Your task to perform on an android device: Empty the shopping cart on ebay.com. Search for razer blade on ebay.com, select the first entry, and add it to the cart. Image 0: 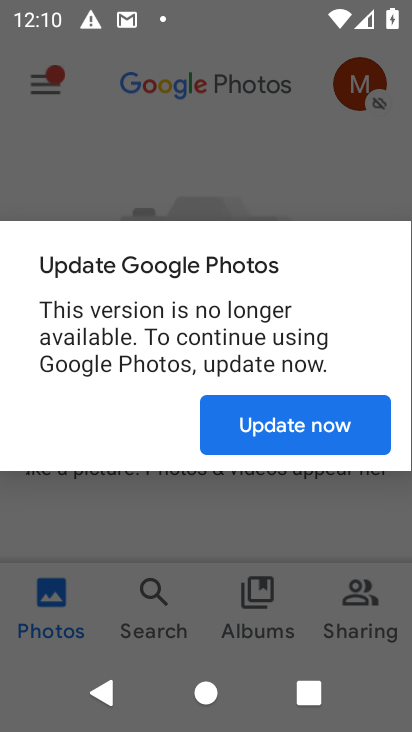
Step 0: press home button
Your task to perform on an android device: Empty the shopping cart on ebay.com. Search for razer blade on ebay.com, select the first entry, and add it to the cart. Image 1: 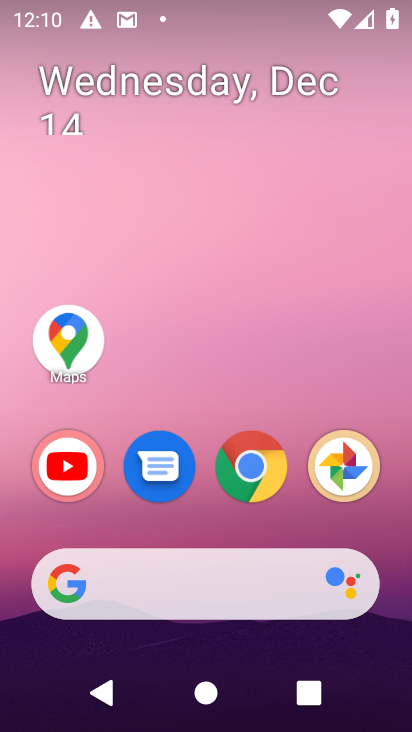
Step 1: click (191, 589)
Your task to perform on an android device: Empty the shopping cart on ebay.com. Search for razer blade on ebay.com, select the first entry, and add it to the cart. Image 2: 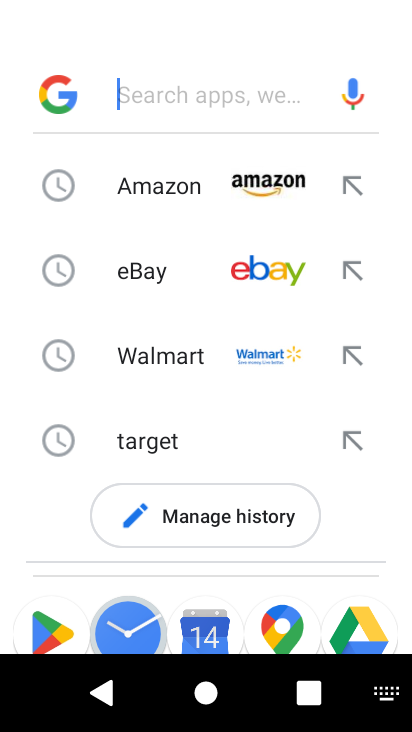
Step 2: click (148, 269)
Your task to perform on an android device: Empty the shopping cart on ebay.com. Search for razer blade on ebay.com, select the first entry, and add it to the cart. Image 3: 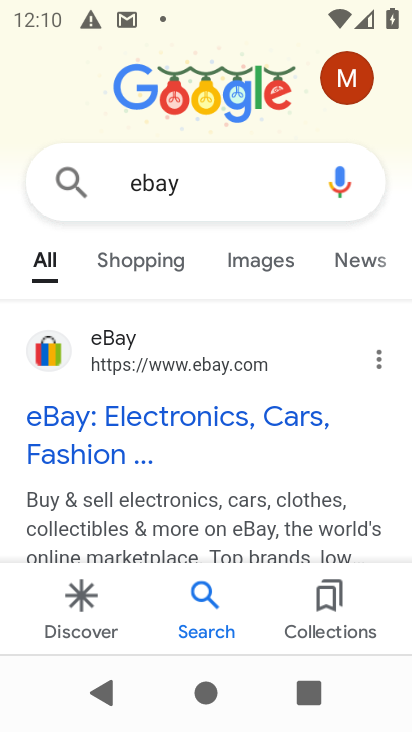
Step 3: click (82, 421)
Your task to perform on an android device: Empty the shopping cart on ebay.com. Search for razer blade on ebay.com, select the first entry, and add it to the cart. Image 4: 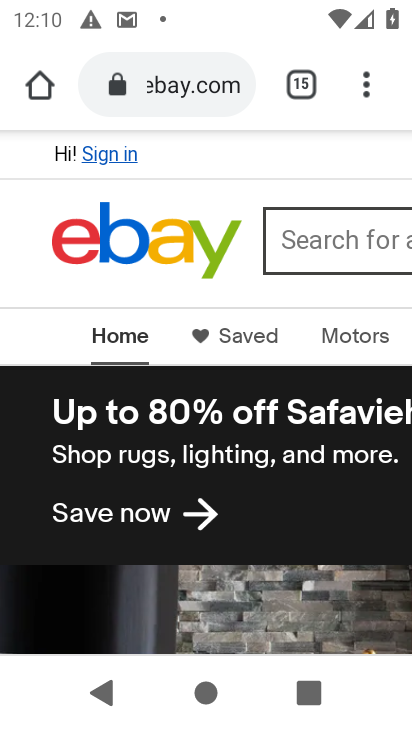
Step 4: click (301, 254)
Your task to perform on an android device: Empty the shopping cart on ebay.com. Search for razer blade on ebay.com, select the first entry, and add it to the cart. Image 5: 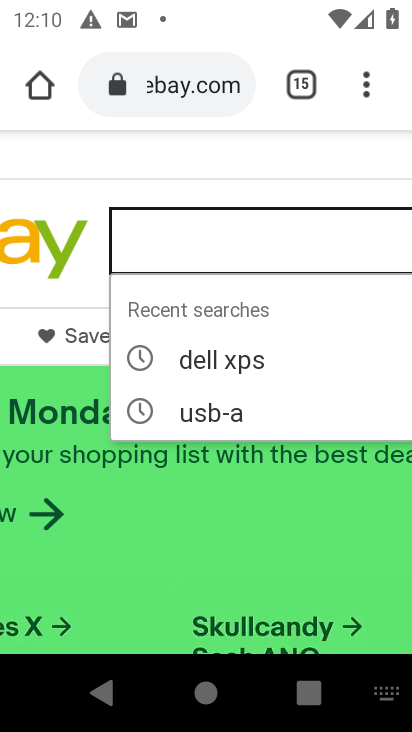
Step 5: type "razer blade"
Your task to perform on an android device: Empty the shopping cart on ebay.com. Search for razer blade on ebay.com, select the first entry, and add it to the cart. Image 6: 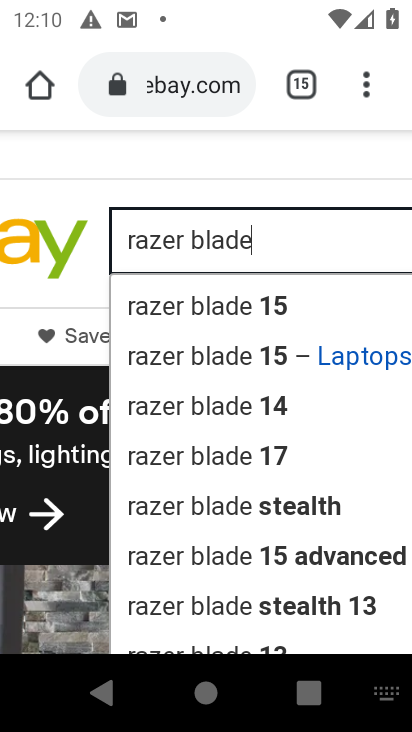
Step 6: drag from (256, 188) to (50, 185)
Your task to perform on an android device: Empty the shopping cart on ebay.com. Search for razer blade on ebay.com, select the first entry, and add it to the cart. Image 7: 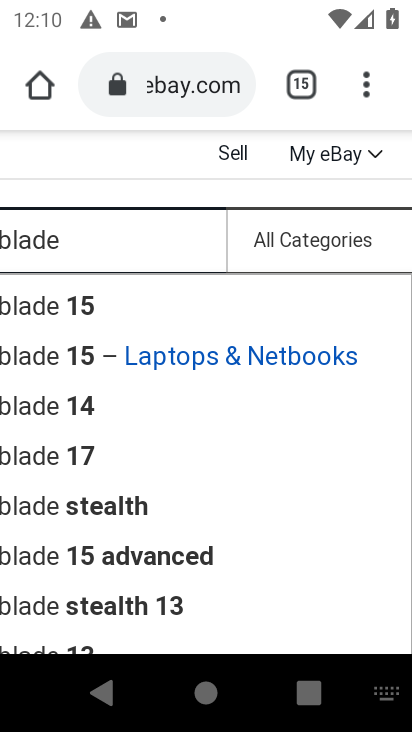
Step 7: drag from (332, 190) to (5, 209)
Your task to perform on an android device: Empty the shopping cart on ebay.com. Search for razer blade on ebay.com, select the first entry, and add it to the cart. Image 8: 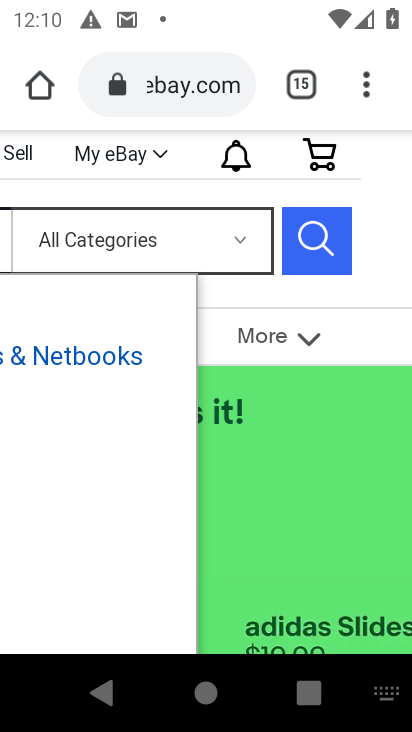
Step 8: click (316, 243)
Your task to perform on an android device: Empty the shopping cart on ebay.com. Search for razer blade on ebay.com, select the first entry, and add it to the cart. Image 9: 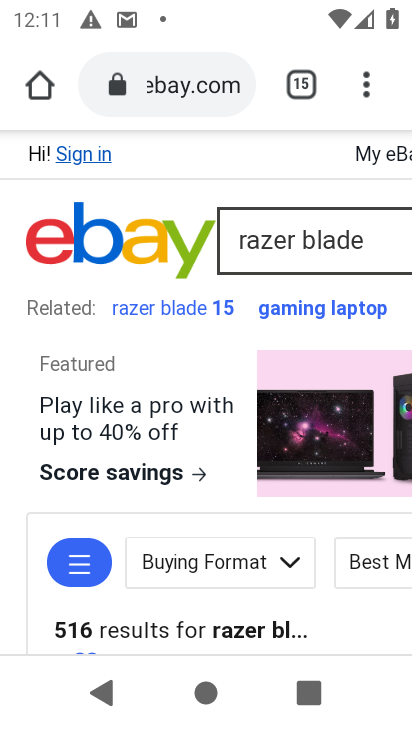
Step 9: drag from (220, 474) to (221, 337)
Your task to perform on an android device: Empty the shopping cart on ebay.com. Search for razer blade on ebay.com, select the first entry, and add it to the cart. Image 10: 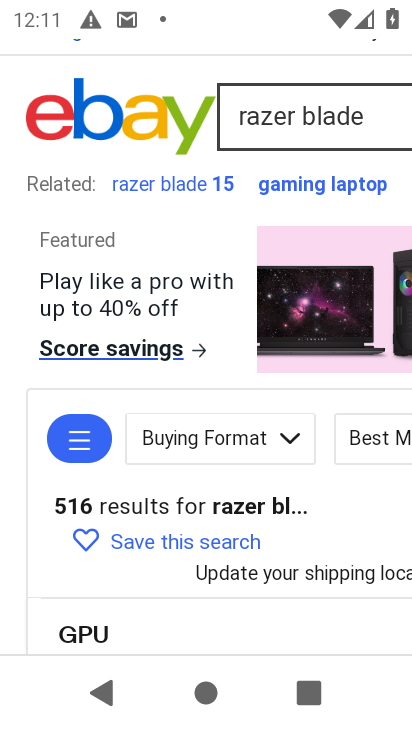
Step 10: drag from (299, 618) to (287, 459)
Your task to perform on an android device: Empty the shopping cart on ebay.com. Search for razer blade on ebay.com, select the first entry, and add it to the cart. Image 11: 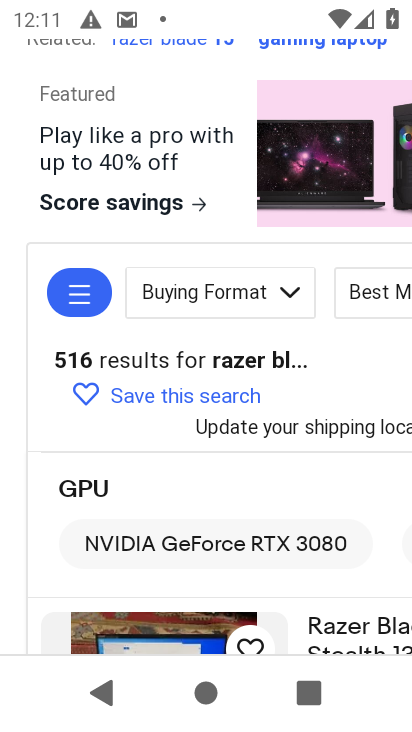
Step 11: click (294, 464)
Your task to perform on an android device: Empty the shopping cart on ebay.com. Search for razer blade on ebay.com, select the first entry, and add it to the cart. Image 12: 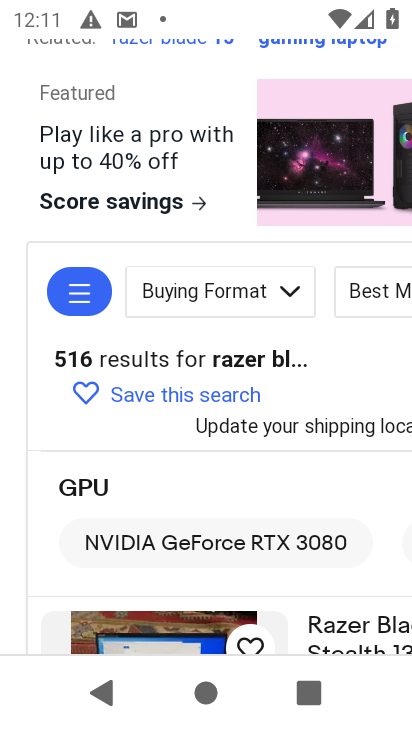
Step 12: drag from (262, 481) to (262, 299)
Your task to perform on an android device: Empty the shopping cart on ebay.com. Search for razer blade on ebay.com, select the first entry, and add it to the cart. Image 13: 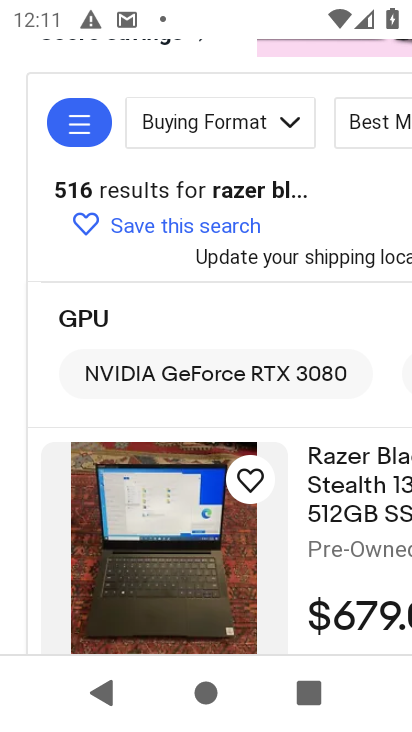
Step 13: drag from (287, 573) to (283, 311)
Your task to perform on an android device: Empty the shopping cart on ebay.com. Search for razer blade on ebay.com, select the first entry, and add it to the cart. Image 14: 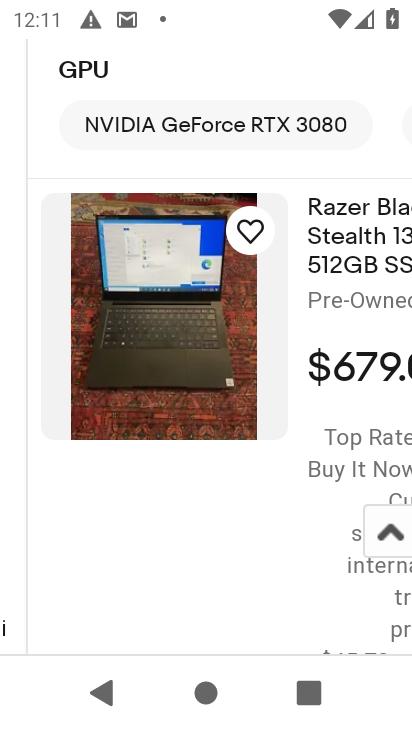
Step 14: drag from (210, 552) to (0, 500)
Your task to perform on an android device: Empty the shopping cart on ebay.com. Search for razer blade on ebay.com, select the first entry, and add it to the cart. Image 15: 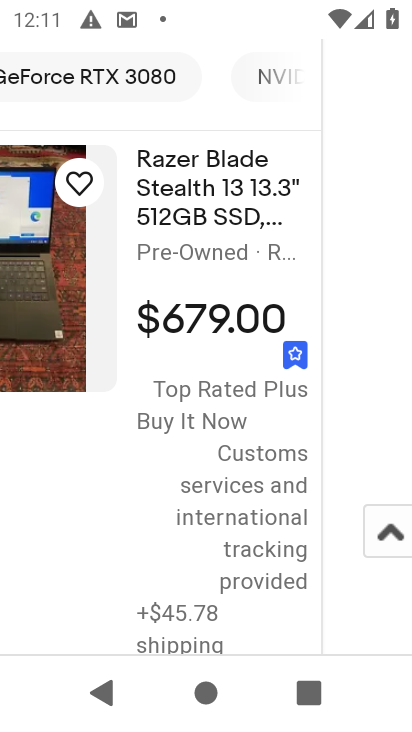
Step 15: drag from (193, 502) to (193, 278)
Your task to perform on an android device: Empty the shopping cart on ebay.com. Search for razer blade on ebay.com, select the first entry, and add it to the cart. Image 16: 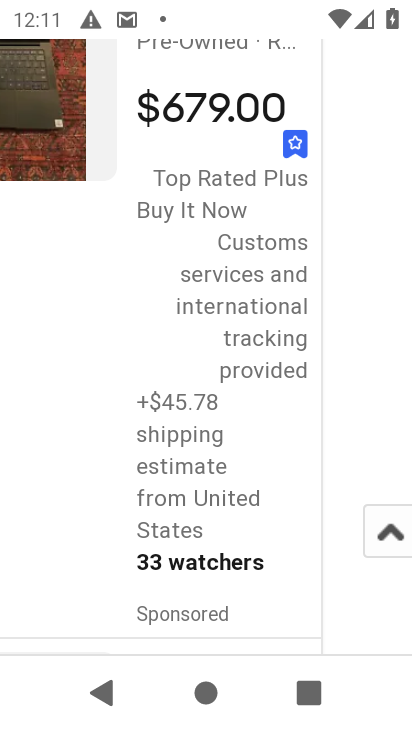
Step 16: drag from (271, 519) to (255, 321)
Your task to perform on an android device: Empty the shopping cart on ebay.com. Search for razer blade on ebay.com, select the first entry, and add it to the cart. Image 17: 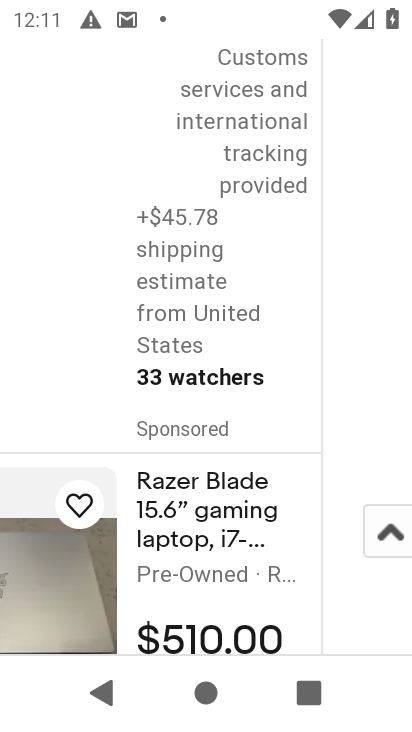
Step 17: drag from (37, 356) to (273, 356)
Your task to perform on an android device: Empty the shopping cart on ebay.com. Search for razer blade on ebay.com, select the first entry, and add it to the cart. Image 18: 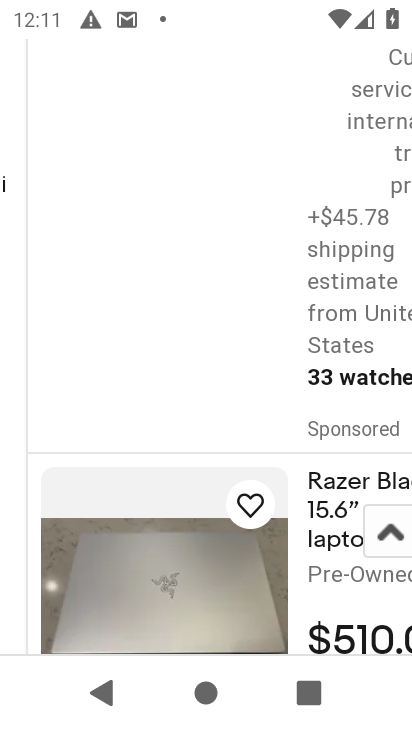
Step 18: drag from (233, 336) to (233, 282)
Your task to perform on an android device: Empty the shopping cart on ebay.com. Search for razer blade on ebay.com, select the first entry, and add it to the cart. Image 19: 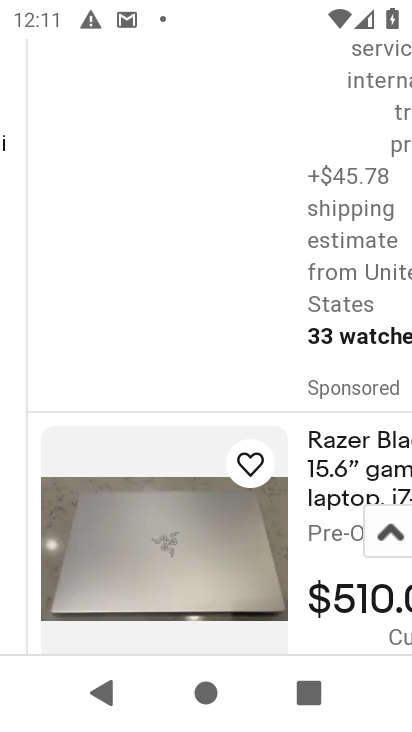
Step 19: drag from (318, 618) to (318, 296)
Your task to perform on an android device: Empty the shopping cart on ebay.com. Search for razer blade on ebay.com, select the first entry, and add it to the cart. Image 20: 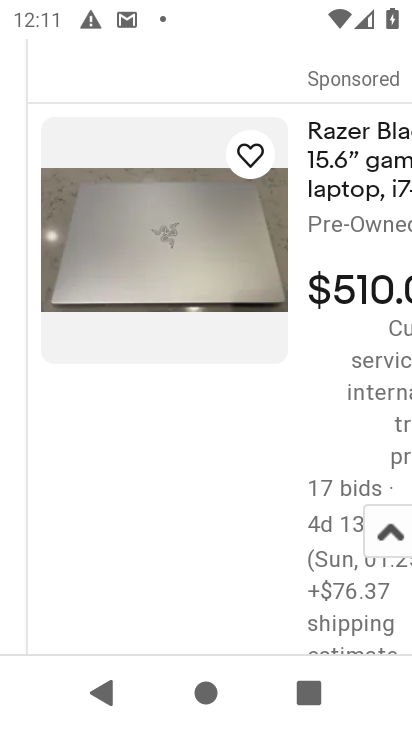
Step 20: drag from (370, 503) to (51, 503)
Your task to perform on an android device: Empty the shopping cart on ebay.com. Search for razer blade on ebay.com, select the first entry, and add it to the cart. Image 21: 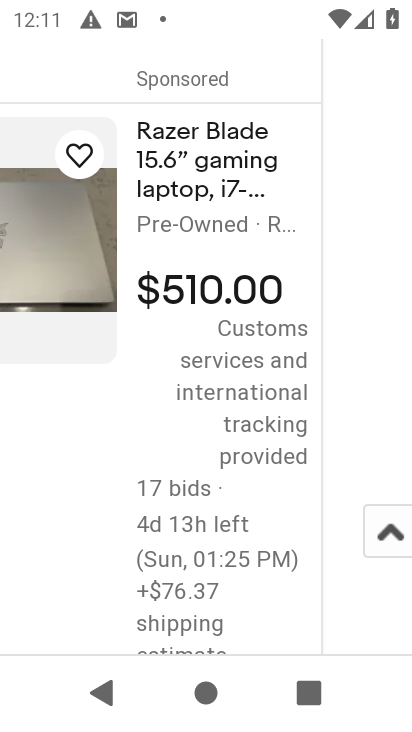
Step 21: drag from (251, 589) to (241, 268)
Your task to perform on an android device: Empty the shopping cart on ebay.com. Search for razer blade on ebay.com, select the first entry, and add it to the cart. Image 22: 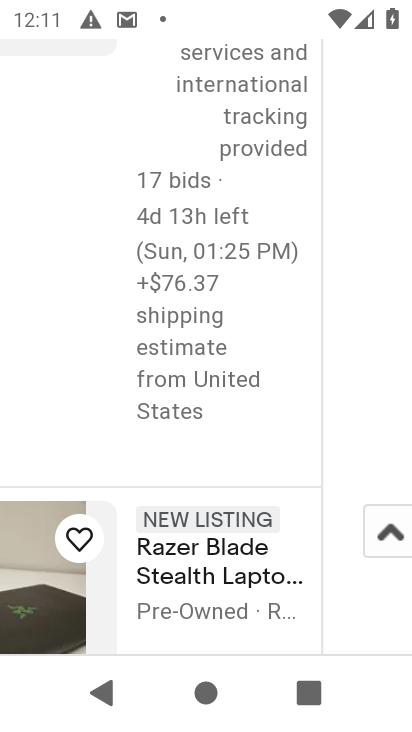
Step 22: drag from (247, 261) to (267, 581)
Your task to perform on an android device: Empty the shopping cart on ebay.com. Search for razer blade on ebay.com, select the first entry, and add it to the cart. Image 23: 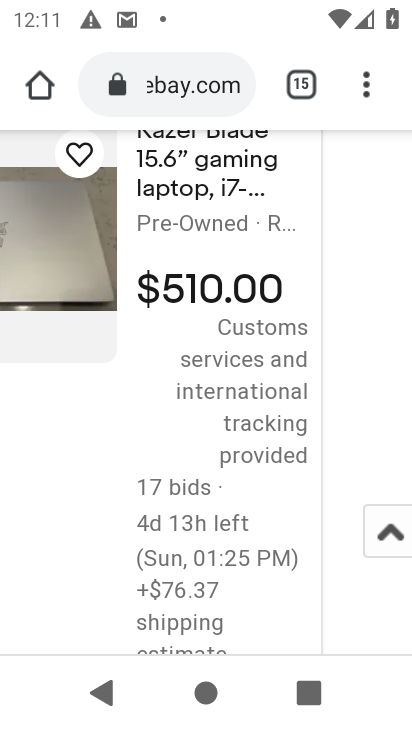
Step 23: drag from (256, 267) to (201, 652)
Your task to perform on an android device: Empty the shopping cart on ebay.com. Search for razer blade on ebay.com, select the first entry, and add it to the cart. Image 24: 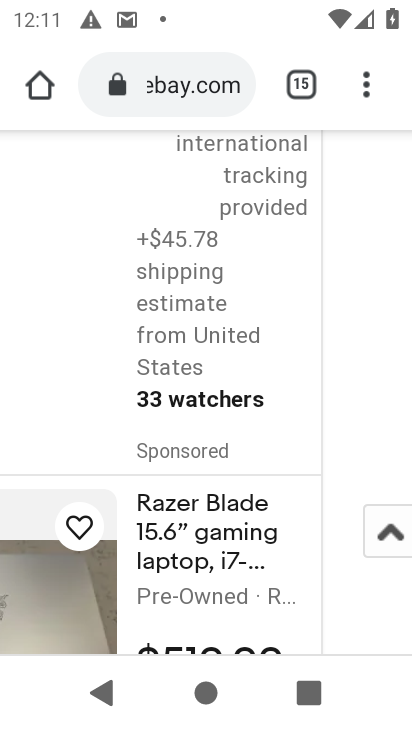
Step 24: drag from (141, 321) to (142, 575)
Your task to perform on an android device: Empty the shopping cart on ebay.com. Search for razer blade on ebay.com, select the first entry, and add it to the cart. Image 25: 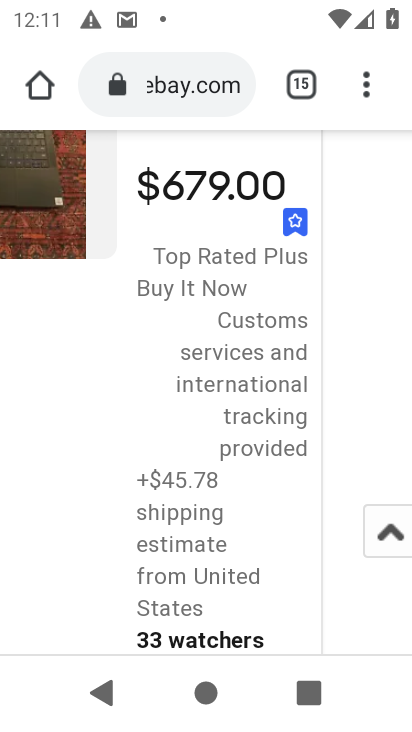
Step 25: click (44, 225)
Your task to perform on an android device: Empty the shopping cart on ebay.com. Search for razer blade on ebay.com, select the first entry, and add it to the cart. Image 26: 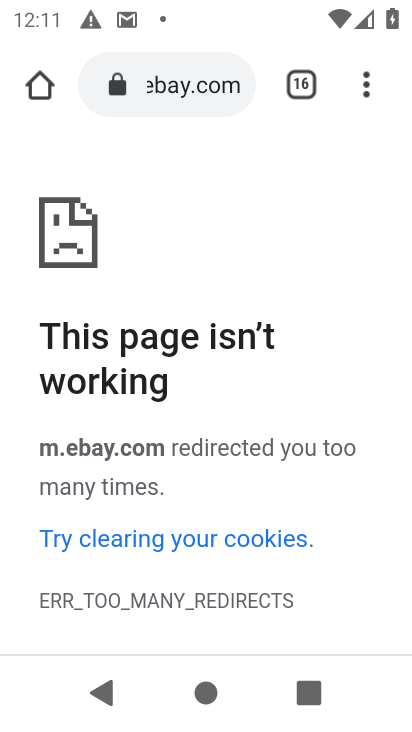
Step 26: task complete